Your task to perform on an android device: uninstall "Microsoft Authenticator" Image 0: 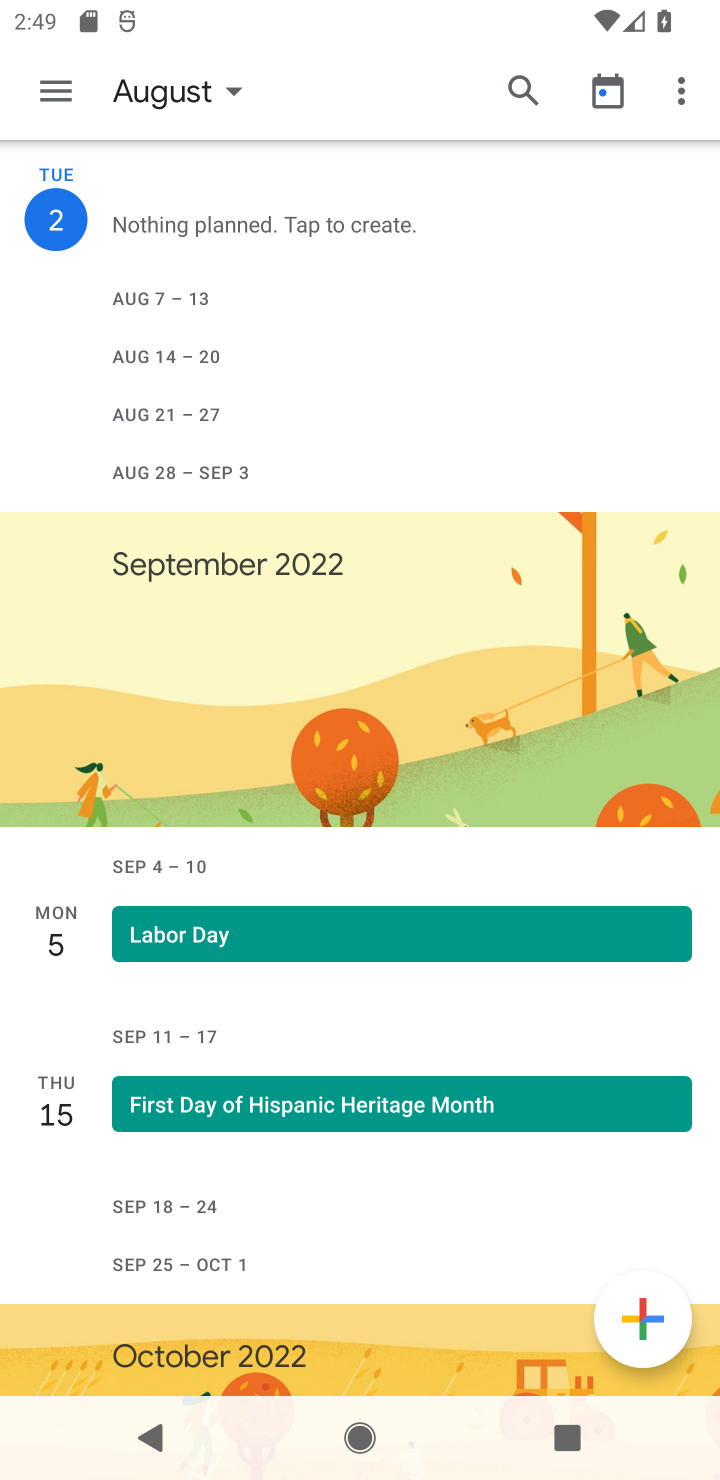
Step 0: press home button
Your task to perform on an android device: uninstall "Microsoft Authenticator" Image 1: 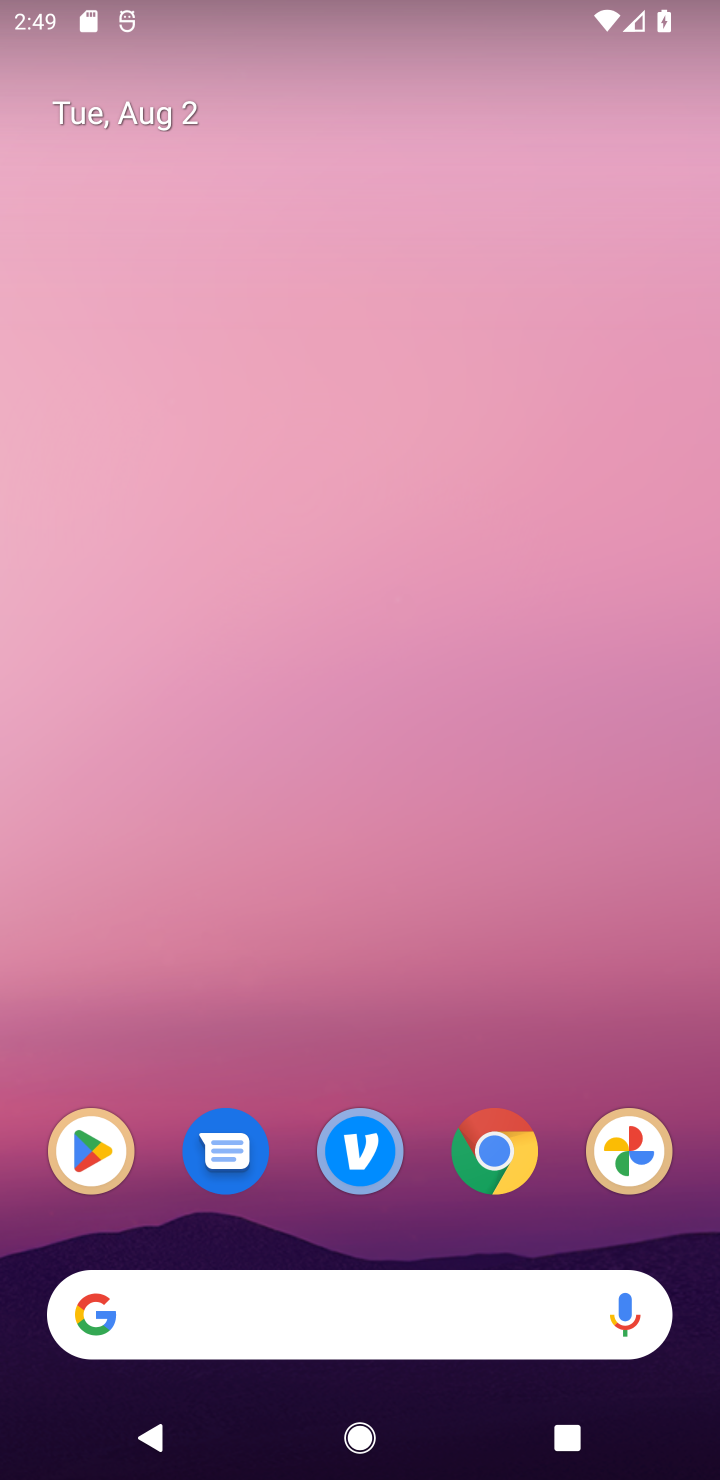
Step 1: drag from (367, 1212) to (486, 92)
Your task to perform on an android device: uninstall "Microsoft Authenticator" Image 2: 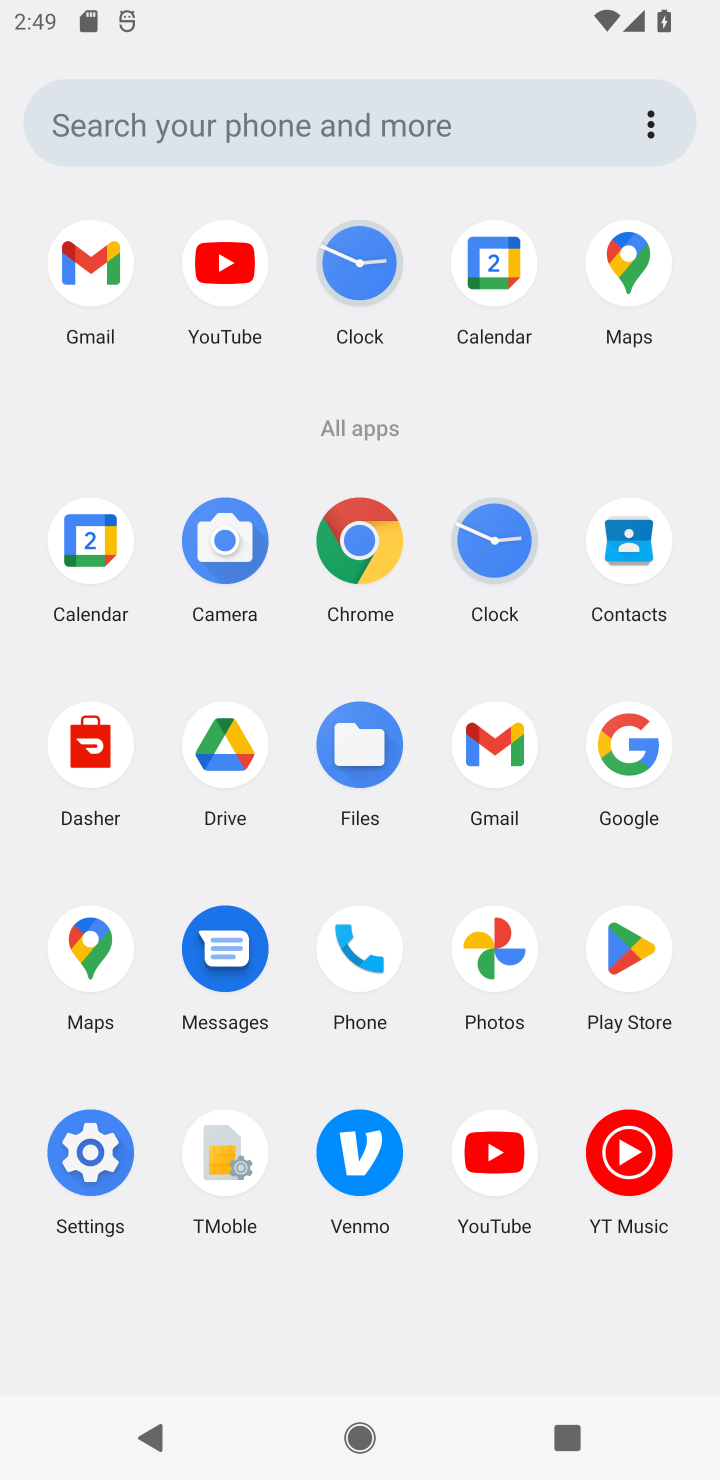
Step 2: click (623, 969)
Your task to perform on an android device: uninstall "Microsoft Authenticator" Image 3: 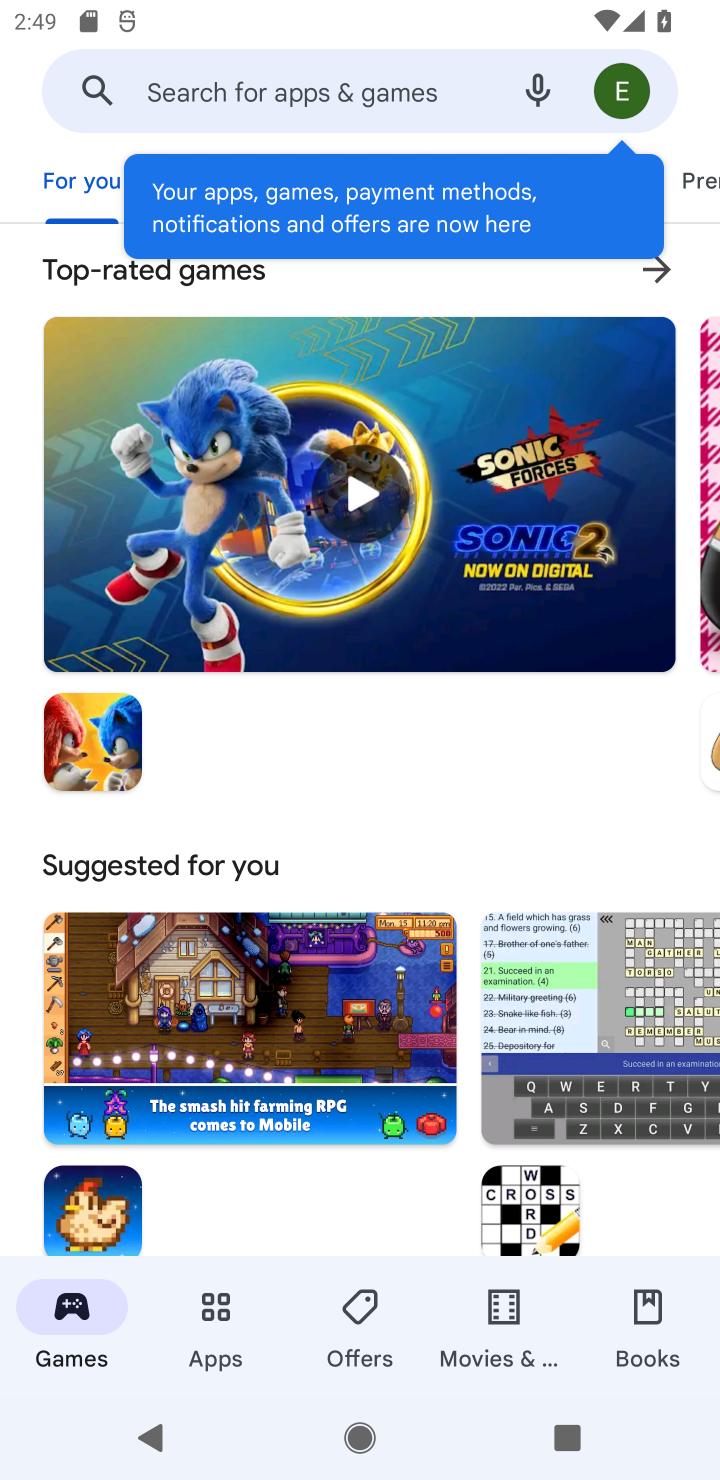
Step 3: click (334, 84)
Your task to perform on an android device: uninstall "Microsoft Authenticator" Image 4: 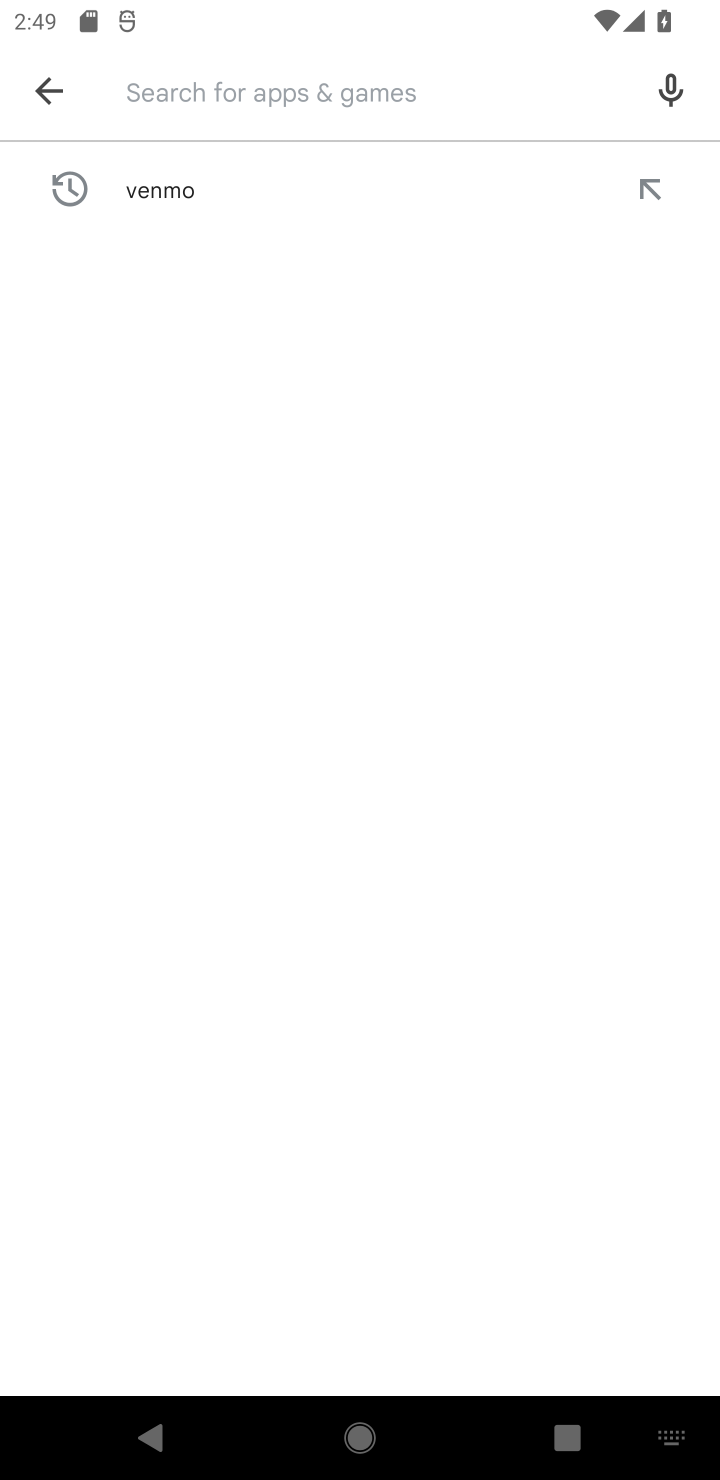
Step 4: type "Microsoft Authenticator"
Your task to perform on an android device: uninstall "Microsoft Authenticator" Image 5: 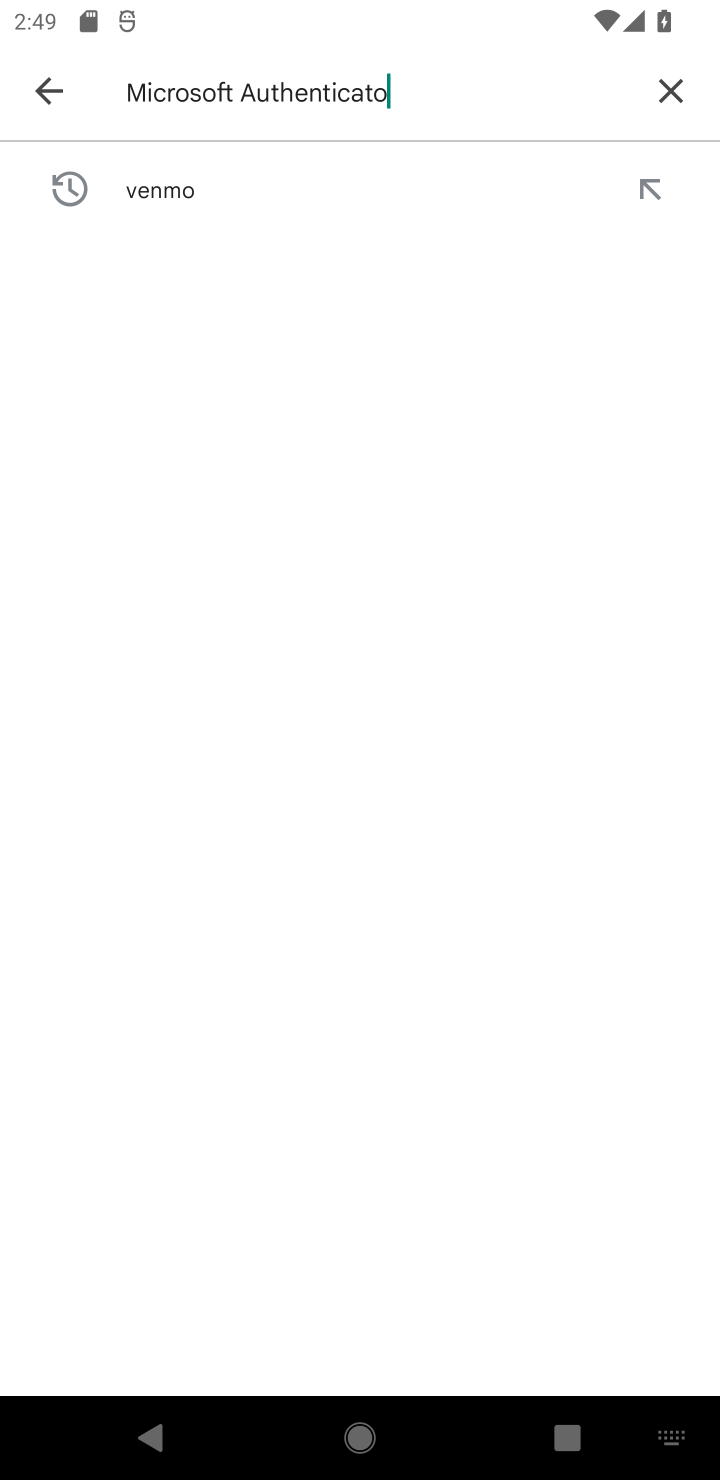
Step 5: type ""
Your task to perform on an android device: uninstall "Microsoft Authenticator" Image 6: 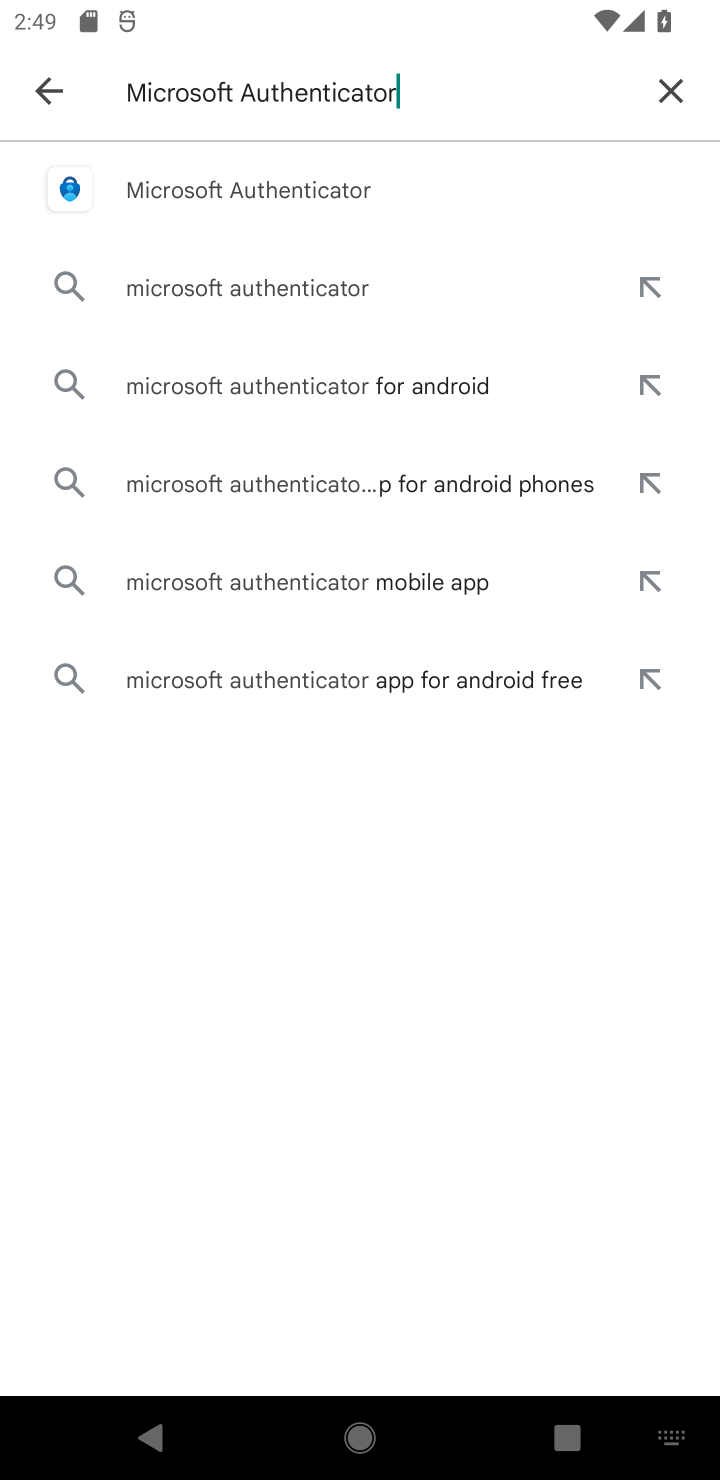
Step 6: click (424, 194)
Your task to perform on an android device: uninstall "Microsoft Authenticator" Image 7: 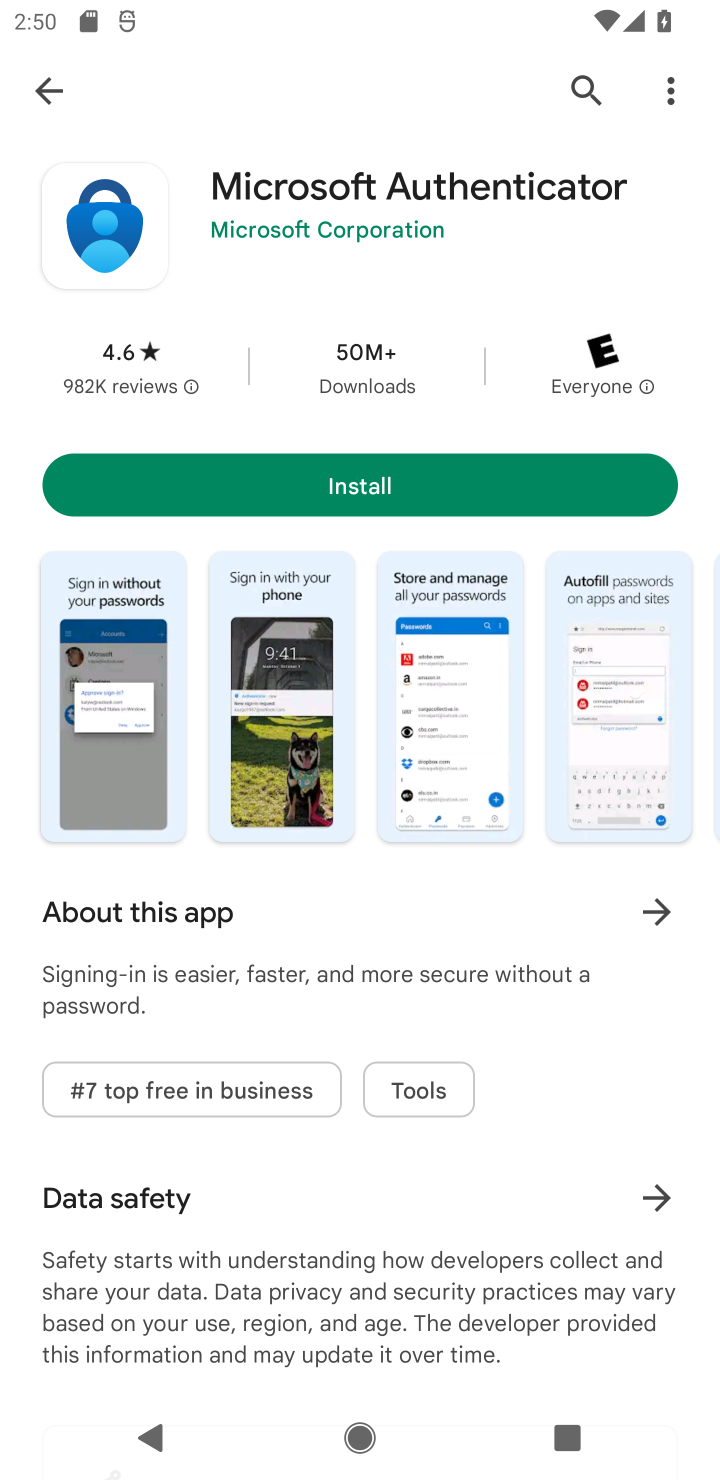
Step 7: task complete